Your task to perform on an android device: clear all cookies in the chrome app Image 0: 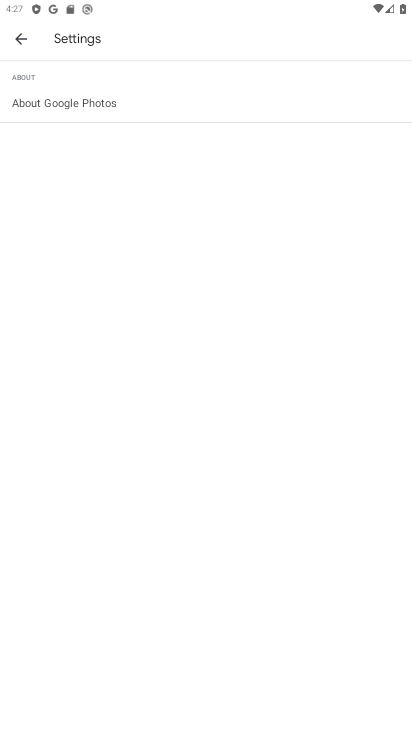
Step 0: press home button
Your task to perform on an android device: clear all cookies in the chrome app Image 1: 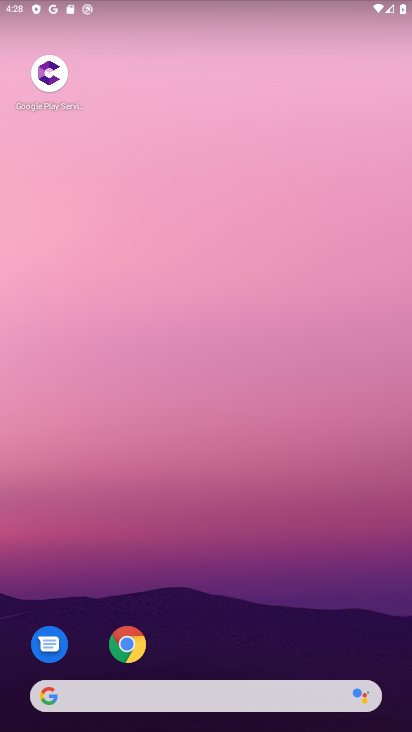
Step 1: drag from (257, 627) to (224, 35)
Your task to perform on an android device: clear all cookies in the chrome app Image 2: 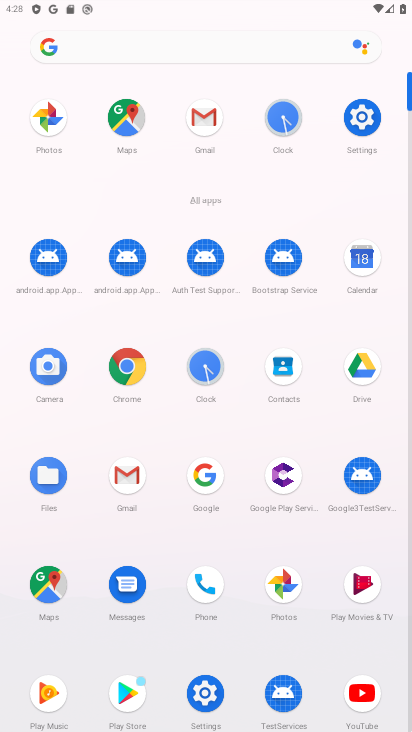
Step 2: click (123, 364)
Your task to perform on an android device: clear all cookies in the chrome app Image 3: 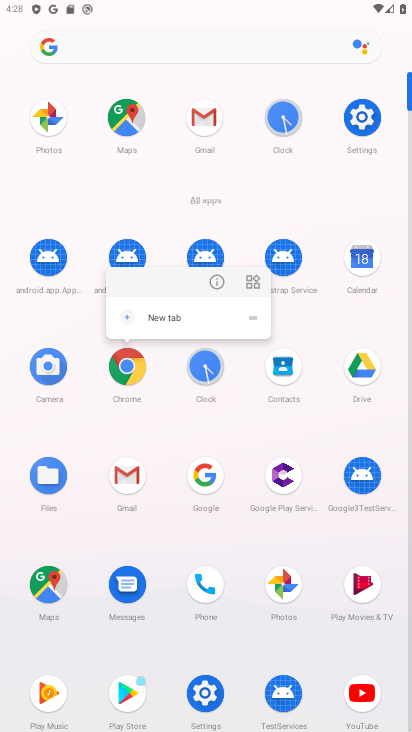
Step 3: click (132, 383)
Your task to perform on an android device: clear all cookies in the chrome app Image 4: 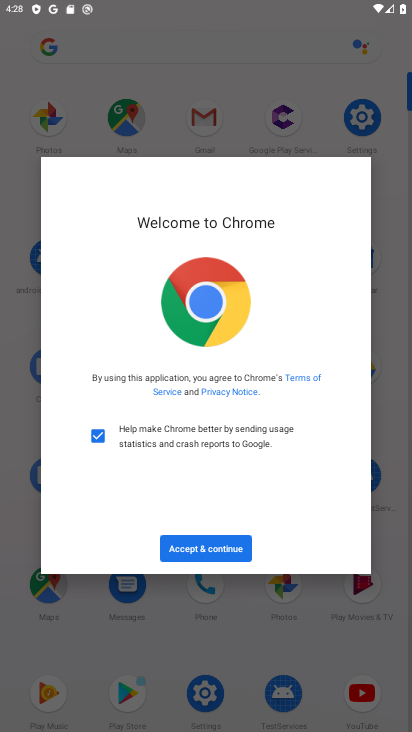
Step 4: click (206, 545)
Your task to perform on an android device: clear all cookies in the chrome app Image 5: 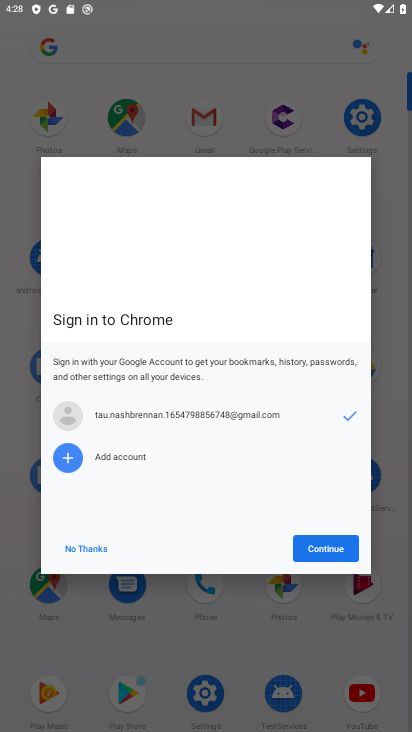
Step 5: click (315, 550)
Your task to perform on an android device: clear all cookies in the chrome app Image 6: 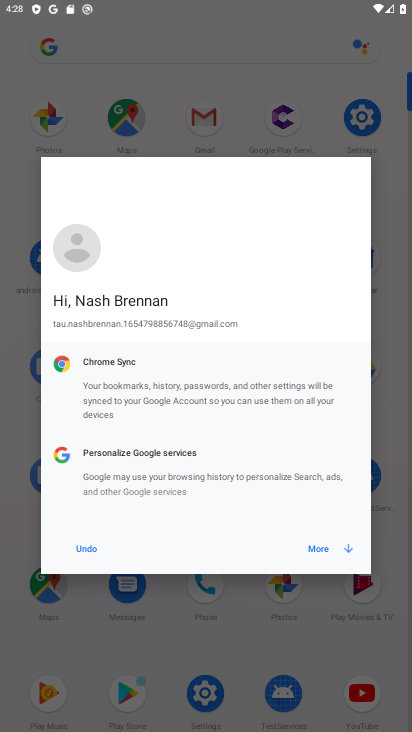
Step 6: click (317, 553)
Your task to perform on an android device: clear all cookies in the chrome app Image 7: 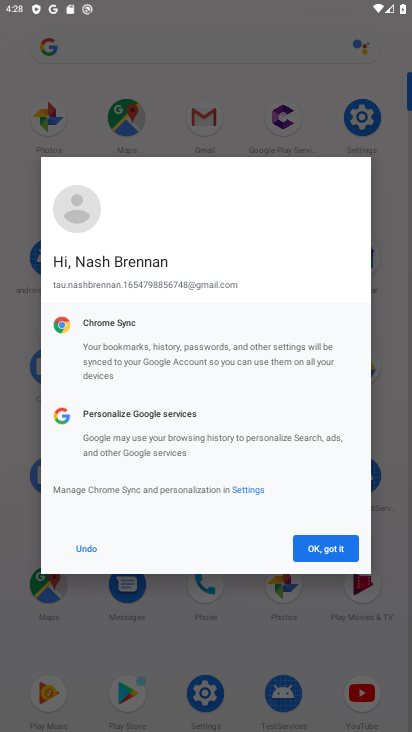
Step 7: click (317, 553)
Your task to perform on an android device: clear all cookies in the chrome app Image 8: 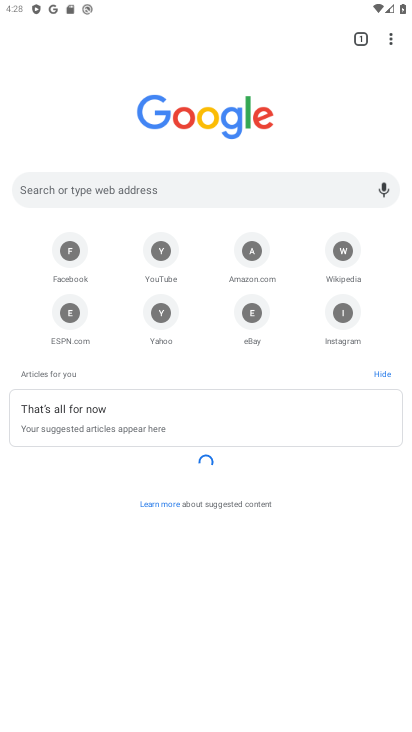
Step 8: drag from (387, 37) to (247, 330)
Your task to perform on an android device: clear all cookies in the chrome app Image 9: 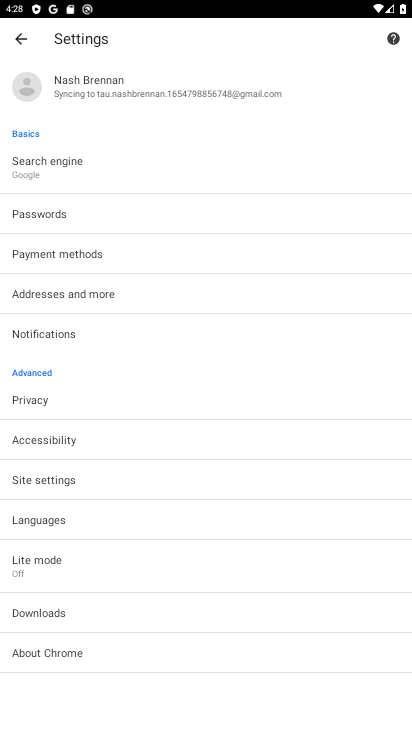
Step 9: click (24, 400)
Your task to perform on an android device: clear all cookies in the chrome app Image 10: 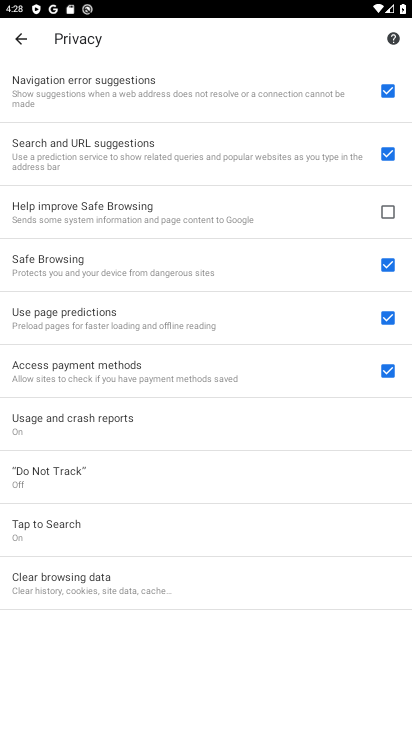
Step 10: click (87, 575)
Your task to perform on an android device: clear all cookies in the chrome app Image 11: 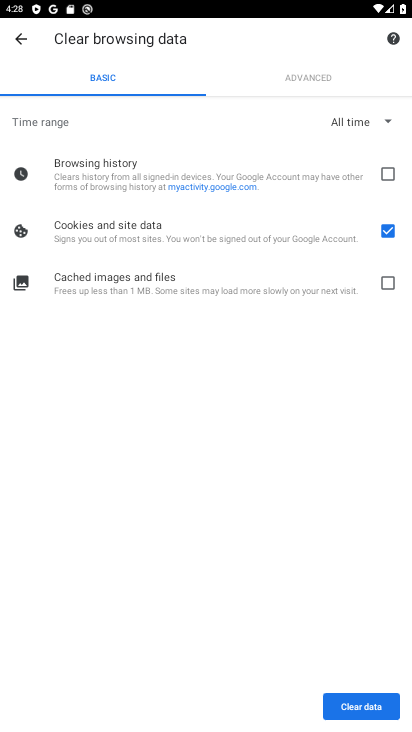
Step 11: click (354, 699)
Your task to perform on an android device: clear all cookies in the chrome app Image 12: 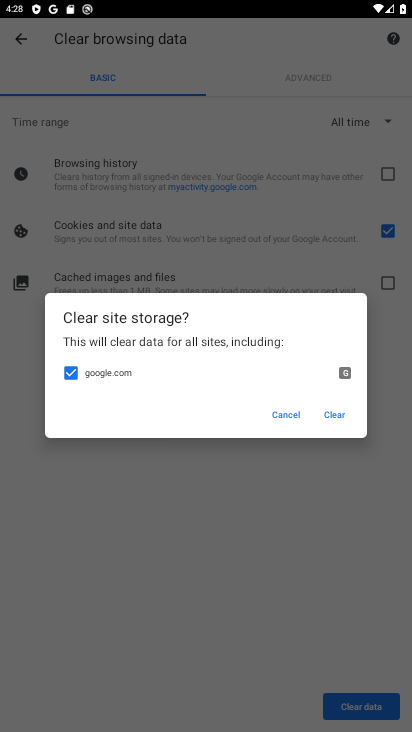
Step 12: click (333, 414)
Your task to perform on an android device: clear all cookies in the chrome app Image 13: 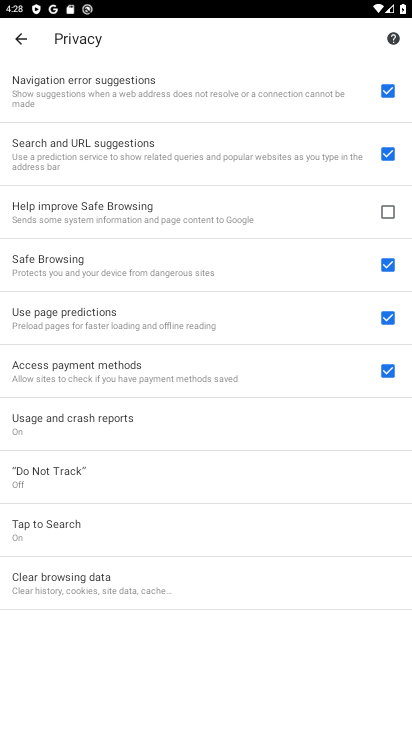
Step 13: task complete